Your task to perform on an android device: Show me productivity apps on the Play Store Image 0: 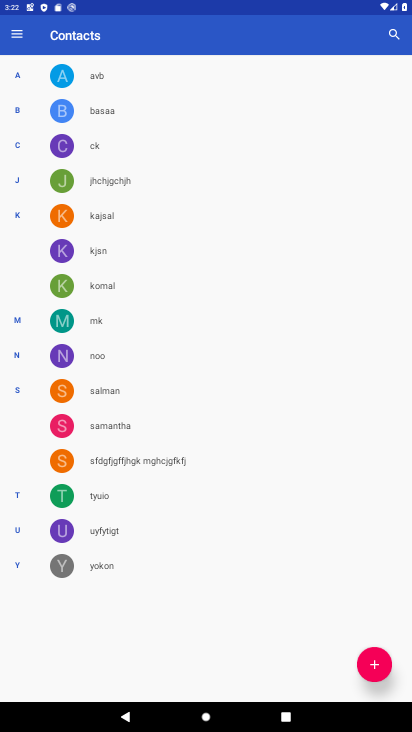
Step 0: press home button
Your task to perform on an android device: Show me productivity apps on the Play Store Image 1: 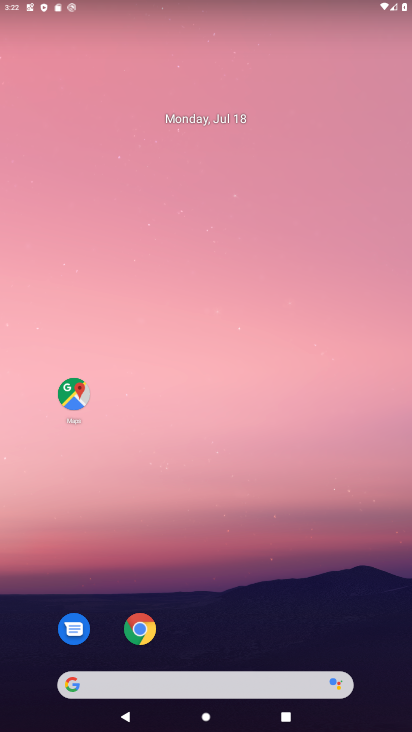
Step 1: drag from (217, 627) to (221, 180)
Your task to perform on an android device: Show me productivity apps on the Play Store Image 2: 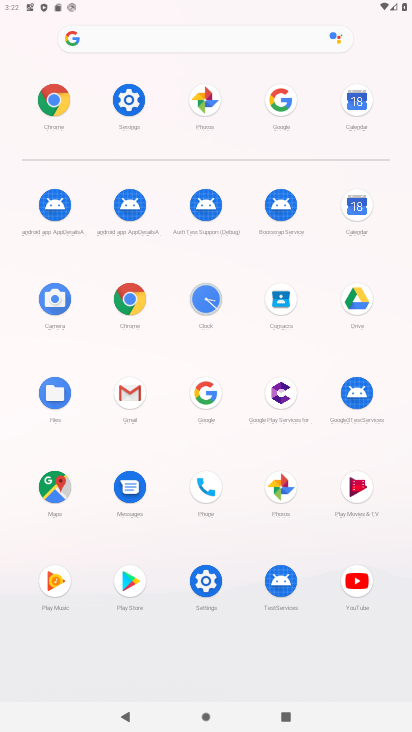
Step 2: click (126, 593)
Your task to perform on an android device: Show me productivity apps on the Play Store Image 3: 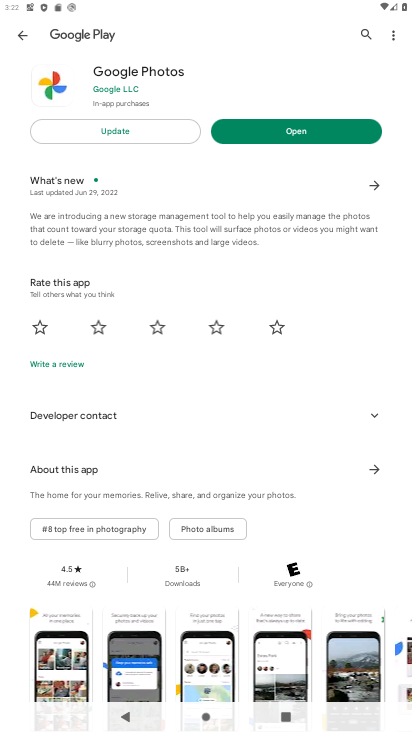
Step 3: click (25, 40)
Your task to perform on an android device: Show me productivity apps on the Play Store Image 4: 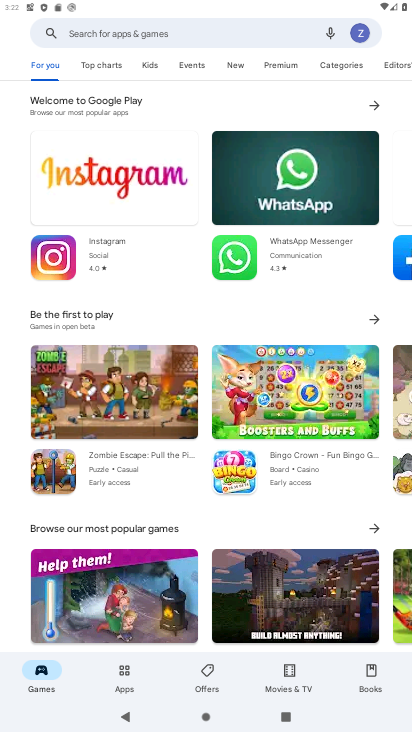
Step 4: click (123, 669)
Your task to perform on an android device: Show me productivity apps on the Play Store Image 5: 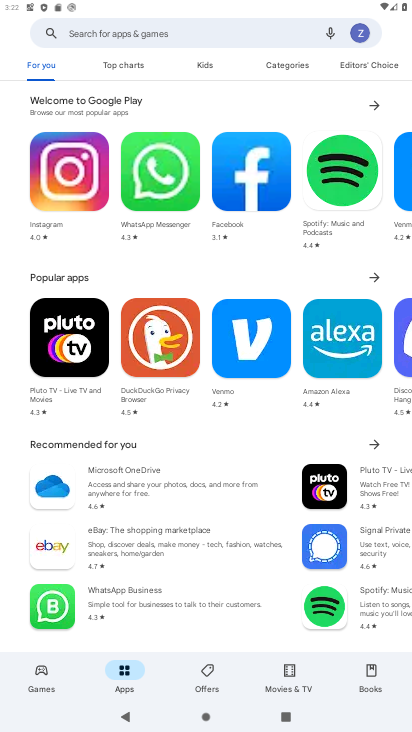
Step 5: click (295, 73)
Your task to perform on an android device: Show me productivity apps on the Play Store Image 6: 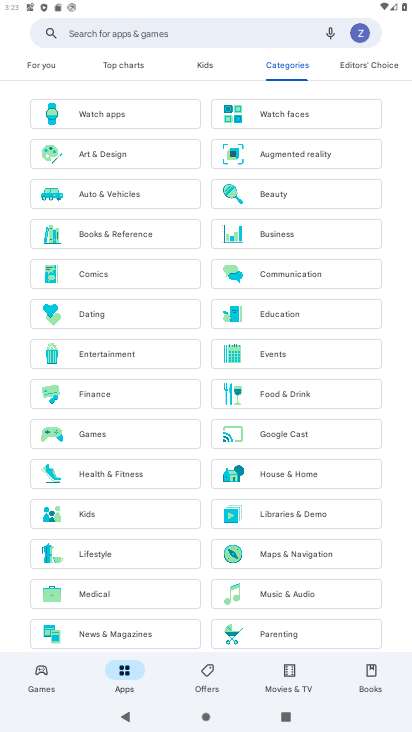
Step 6: drag from (202, 562) to (234, 320)
Your task to perform on an android device: Show me productivity apps on the Play Store Image 7: 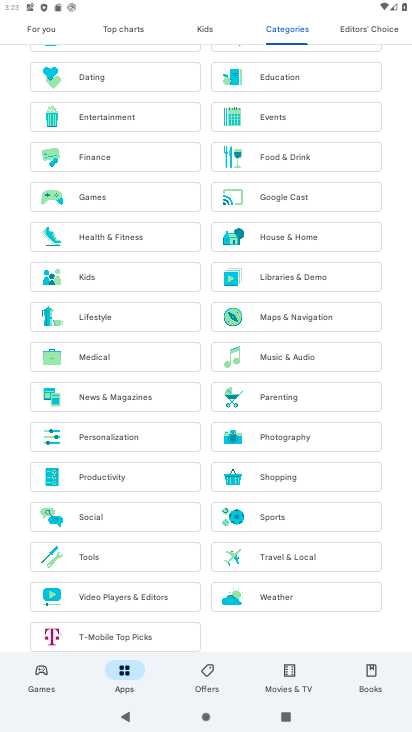
Step 7: click (137, 480)
Your task to perform on an android device: Show me productivity apps on the Play Store Image 8: 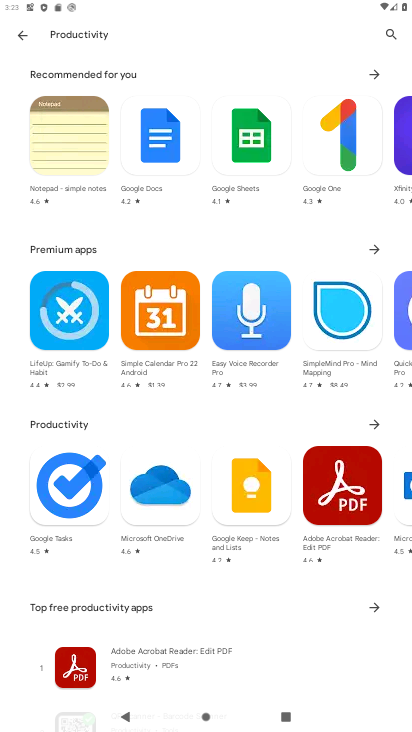
Step 8: task complete